Your task to perform on an android device: toggle show notifications on the lock screen Image 0: 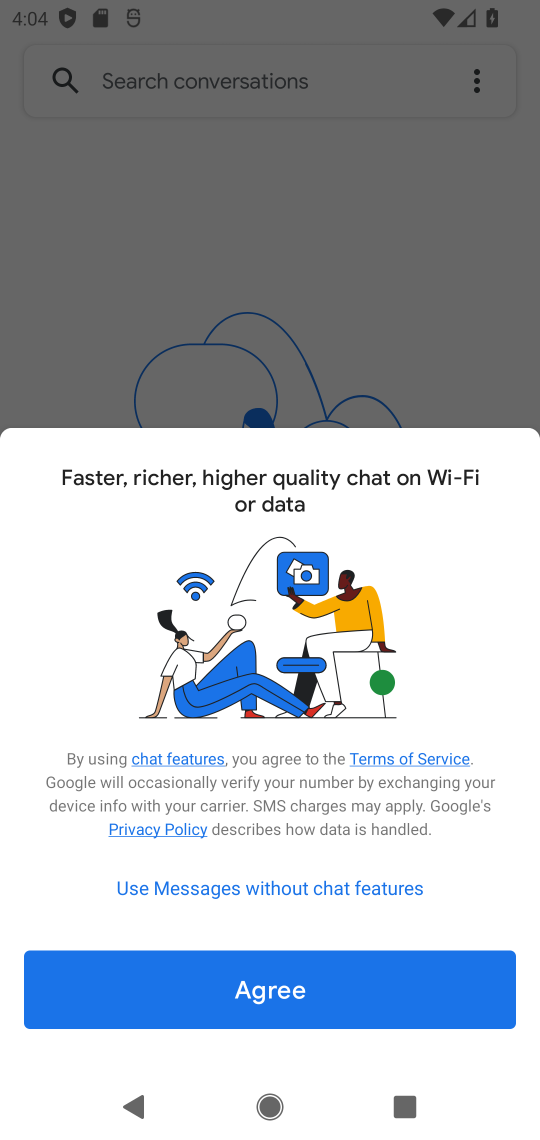
Step 0: press home button
Your task to perform on an android device: toggle show notifications on the lock screen Image 1: 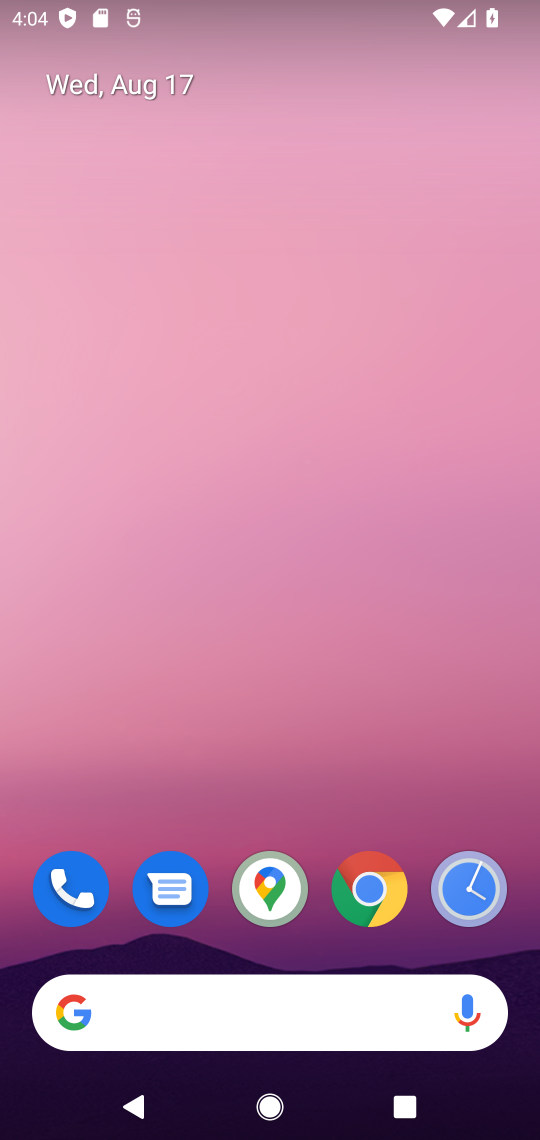
Step 1: drag from (293, 802) to (223, 174)
Your task to perform on an android device: toggle show notifications on the lock screen Image 2: 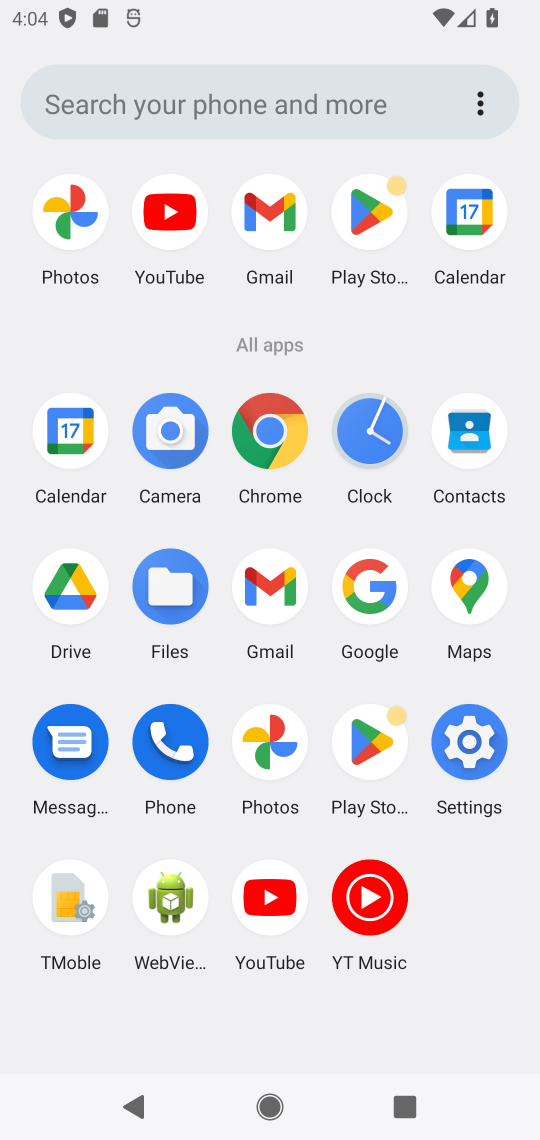
Step 2: click (475, 745)
Your task to perform on an android device: toggle show notifications on the lock screen Image 3: 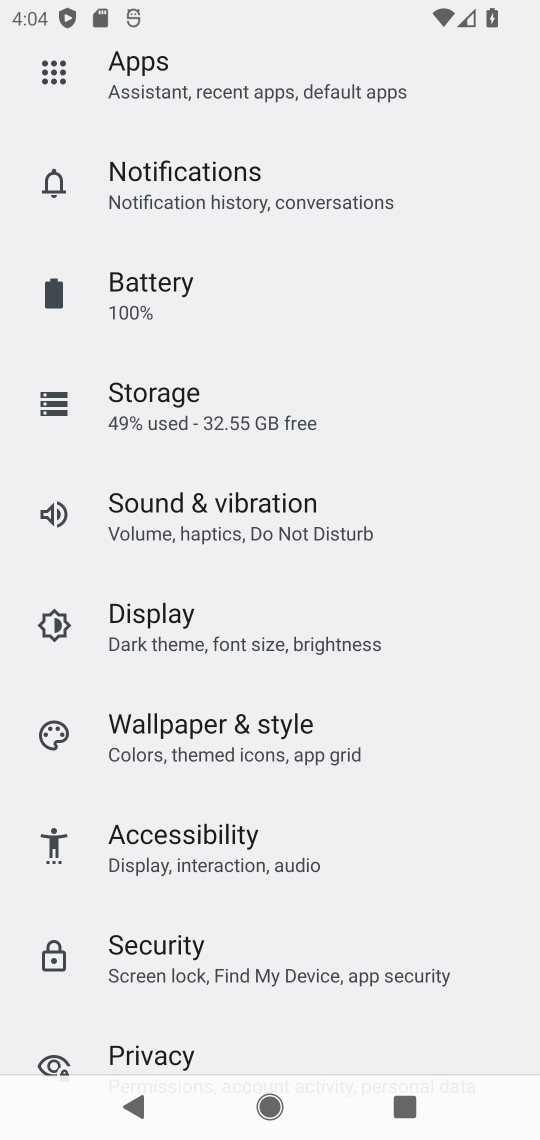
Step 3: click (184, 164)
Your task to perform on an android device: toggle show notifications on the lock screen Image 4: 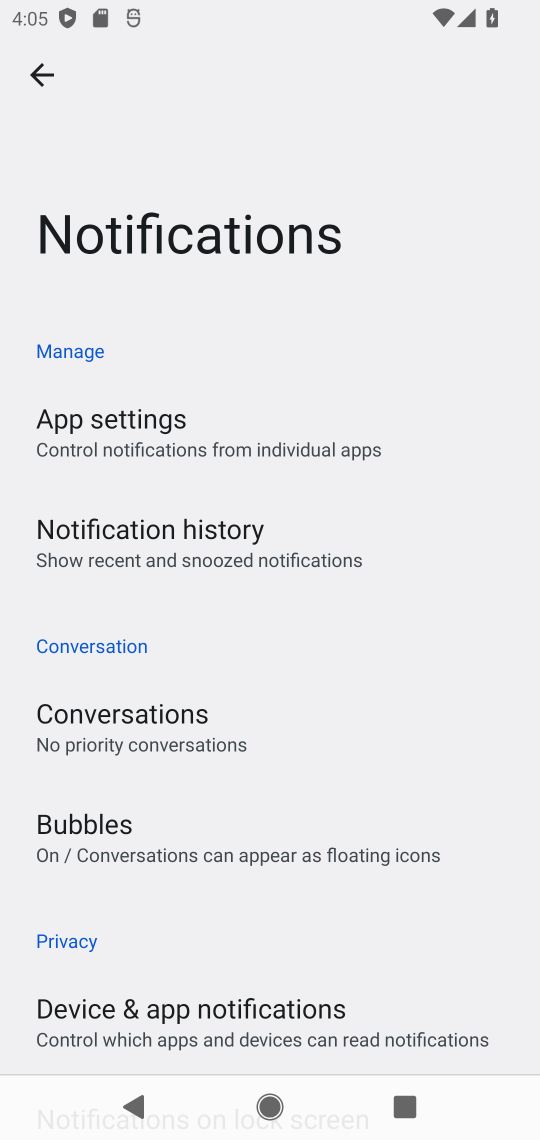
Step 4: click (213, 1010)
Your task to perform on an android device: toggle show notifications on the lock screen Image 5: 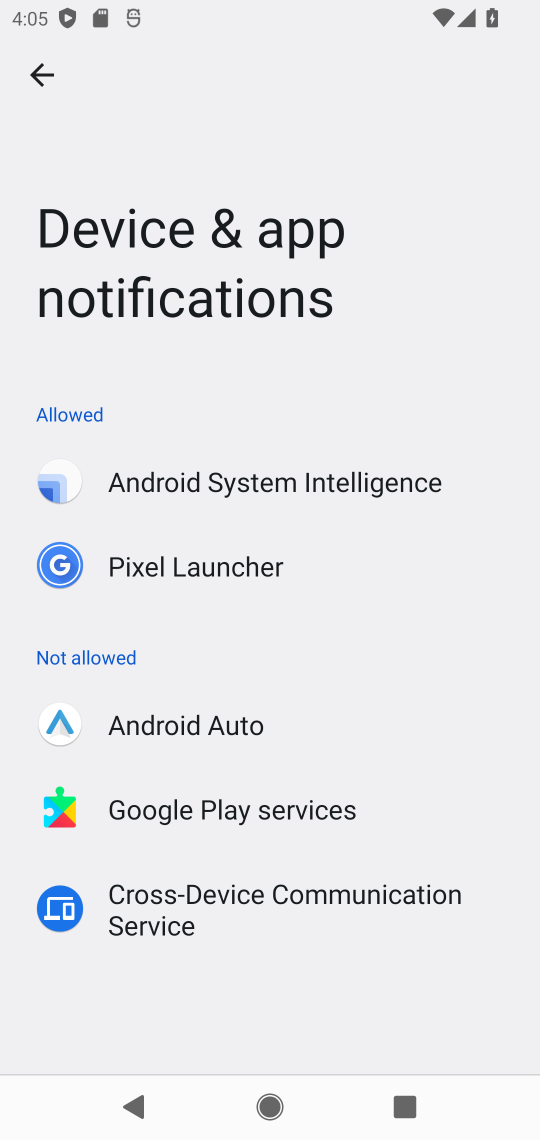
Step 5: click (34, 55)
Your task to perform on an android device: toggle show notifications on the lock screen Image 6: 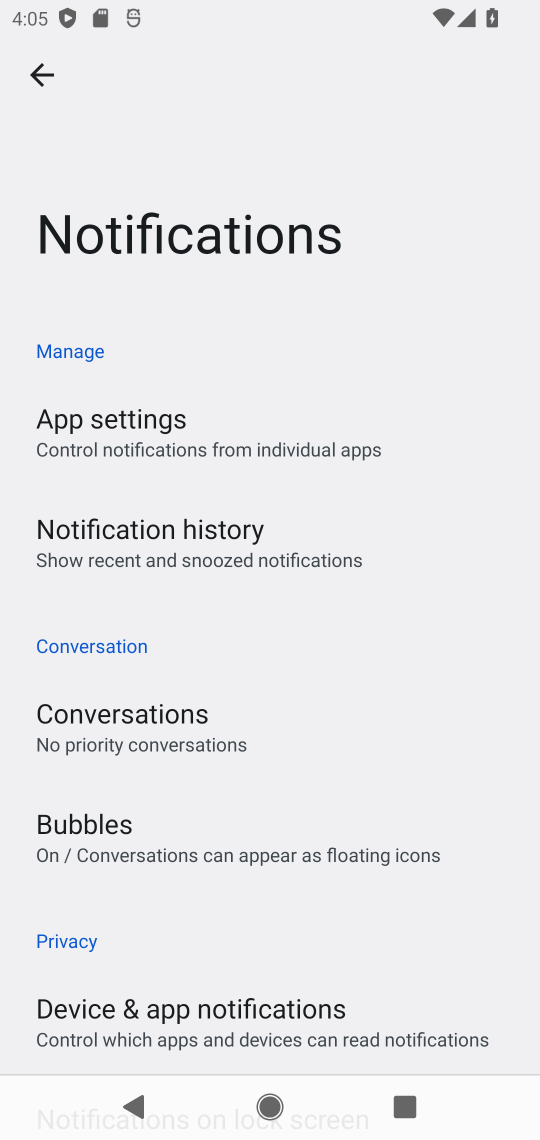
Step 6: drag from (314, 961) to (283, 634)
Your task to perform on an android device: toggle show notifications on the lock screen Image 7: 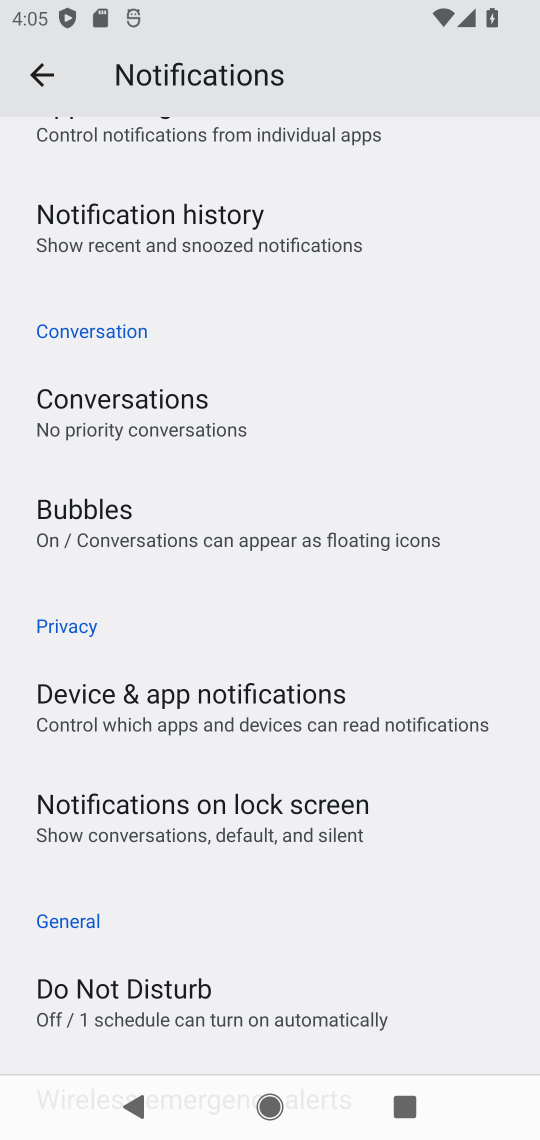
Step 7: click (248, 803)
Your task to perform on an android device: toggle show notifications on the lock screen Image 8: 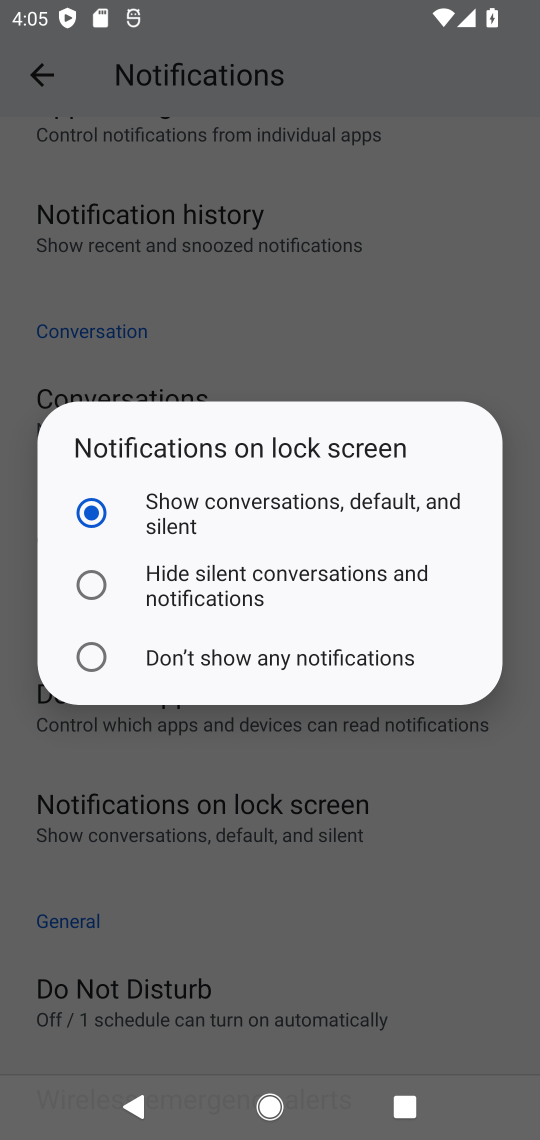
Step 8: click (96, 661)
Your task to perform on an android device: toggle show notifications on the lock screen Image 9: 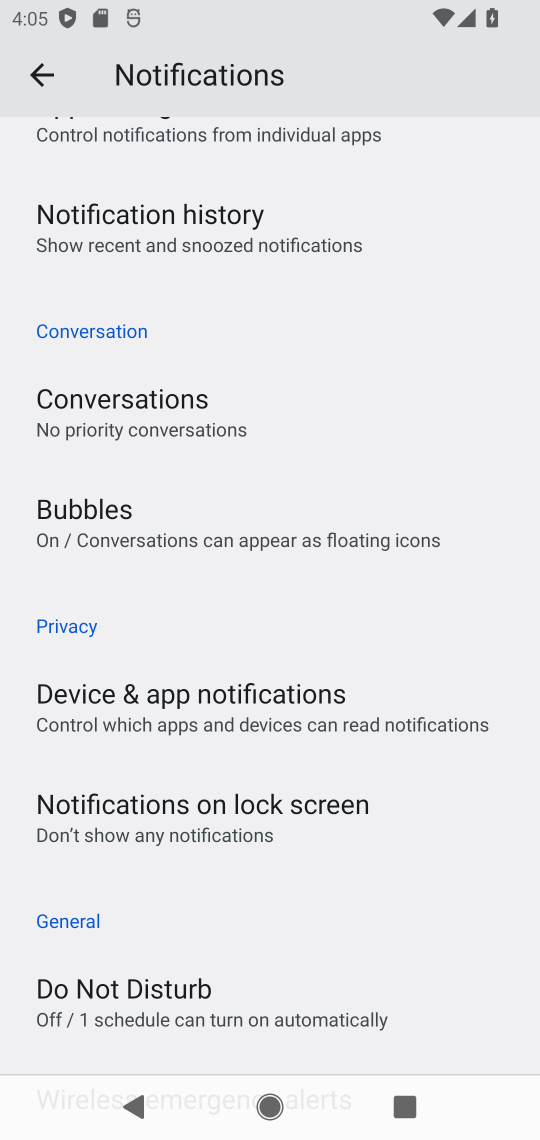
Step 9: task complete